Your task to perform on an android device: install app "Pandora - Music & Podcasts" Image 0: 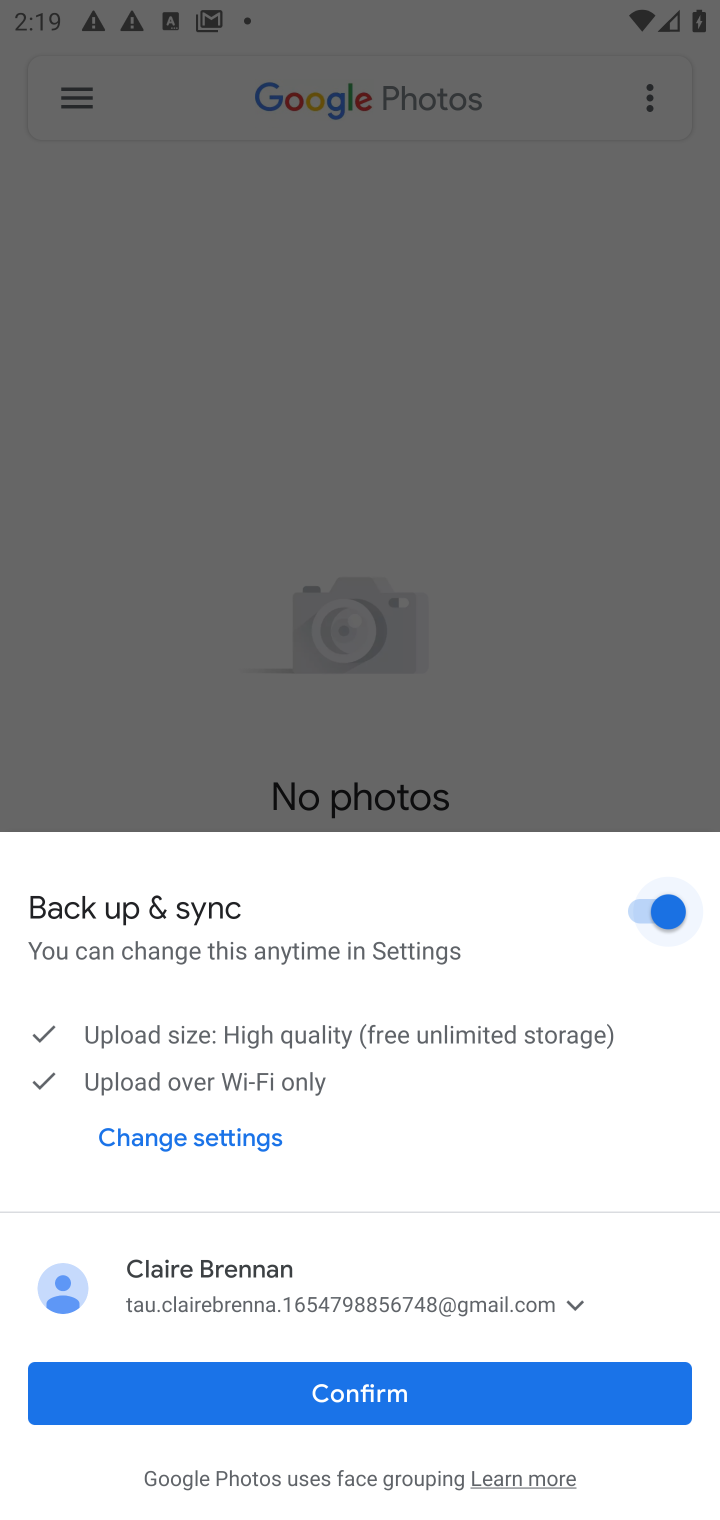
Step 0: press home button
Your task to perform on an android device: install app "Pandora - Music & Podcasts" Image 1: 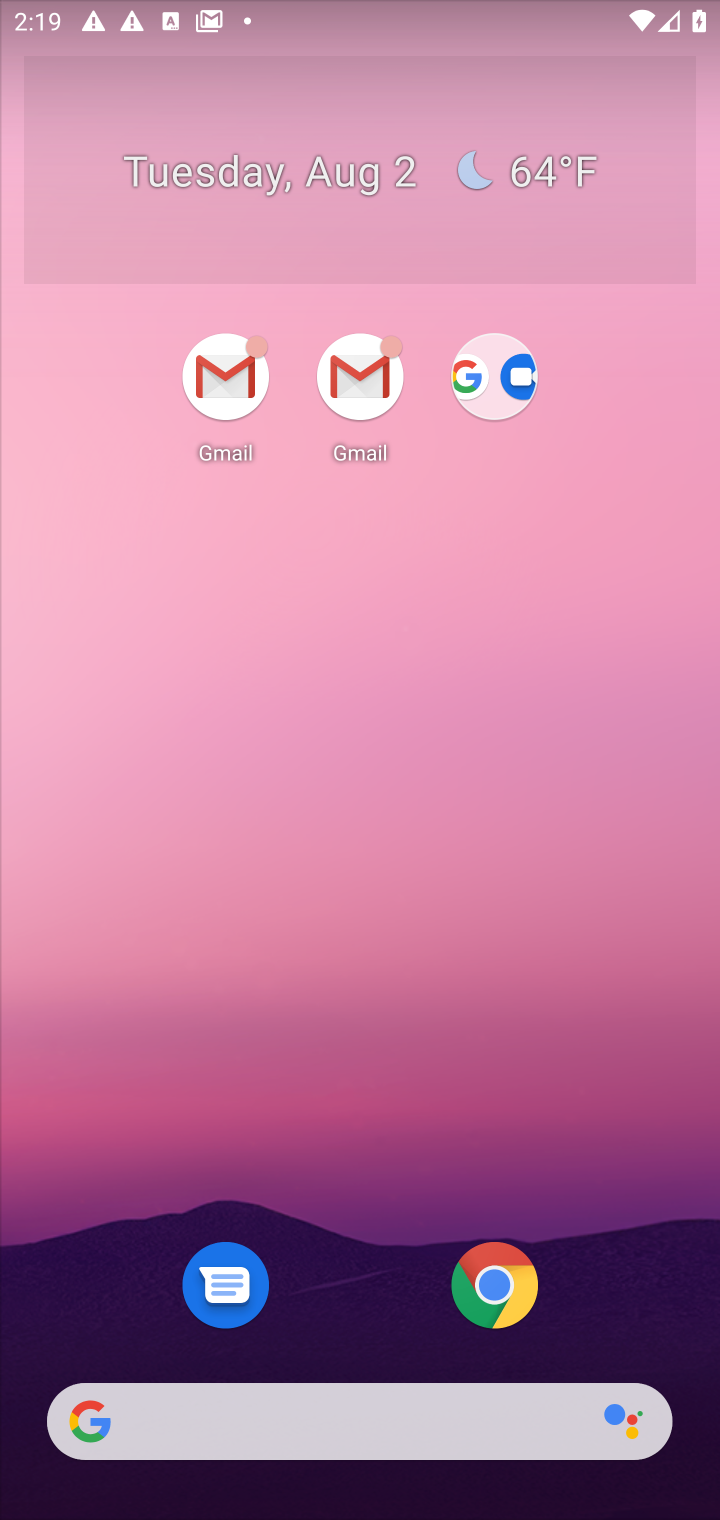
Step 1: drag from (369, 1229) to (423, 22)
Your task to perform on an android device: install app "Pandora - Music & Podcasts" Image 2: 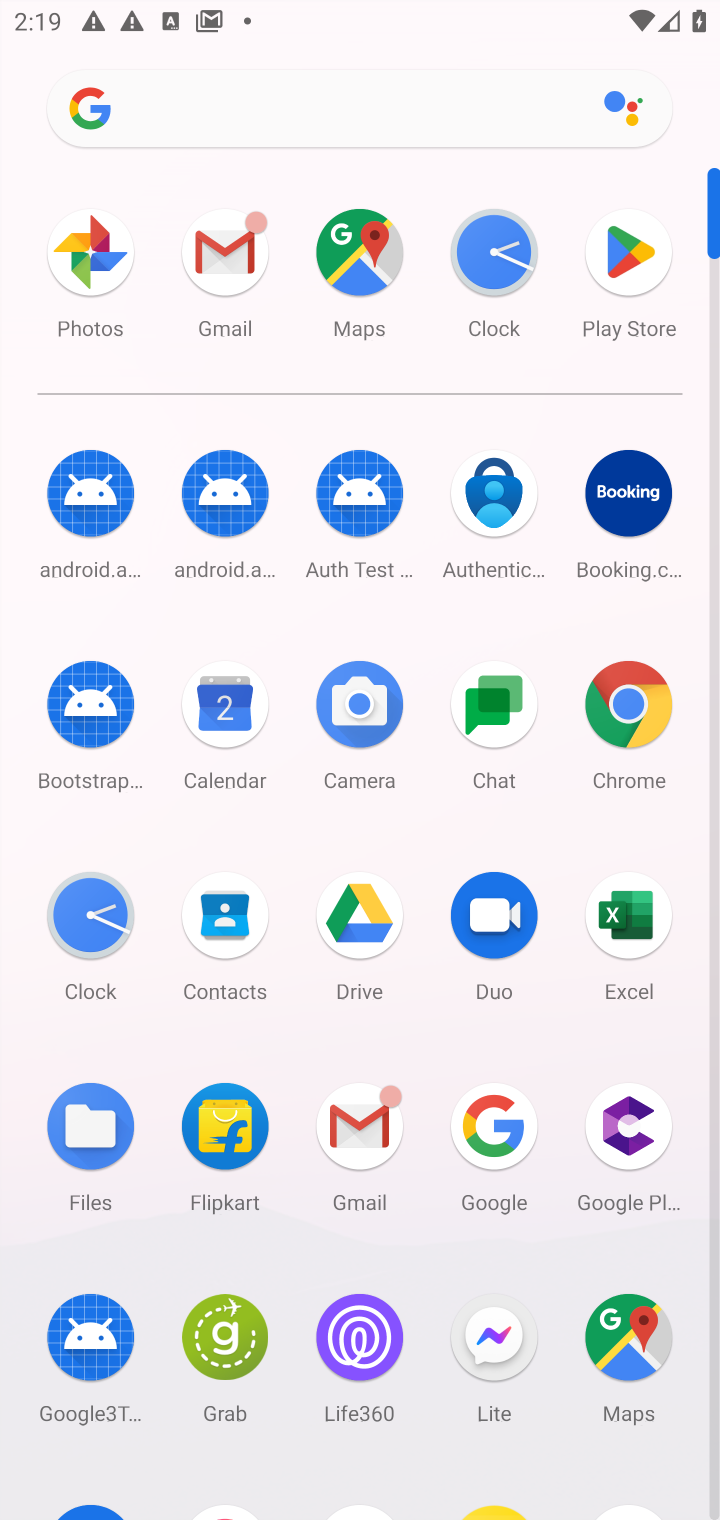
Step 2: drag from (414, 1246) to (514, 299)
Your task to perform on an android device: install app "Pandora - Music & Podcasts" Image 3: 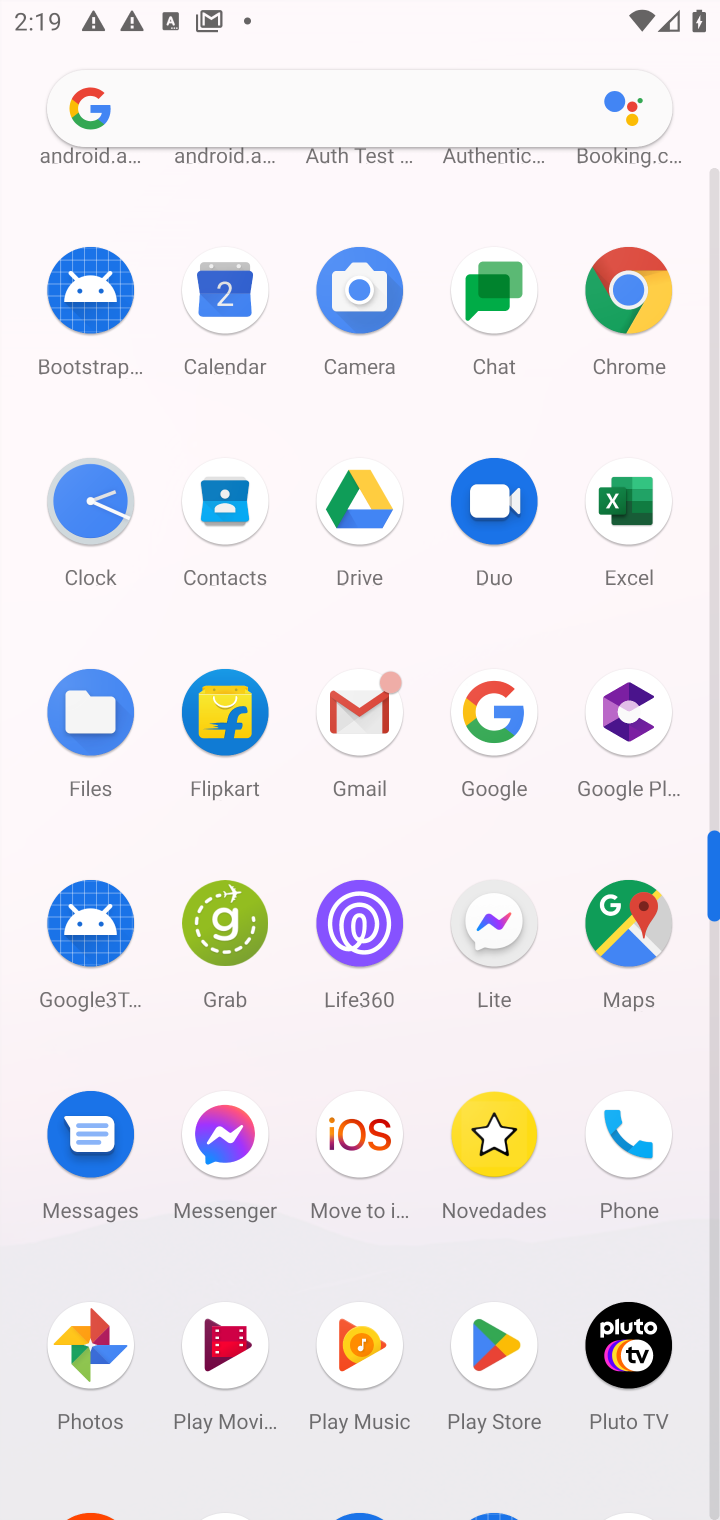
Step 3: click (496, 1323)
Your task to perform on an android device: install app "Pandora - Music & Podcasts" Image 4: 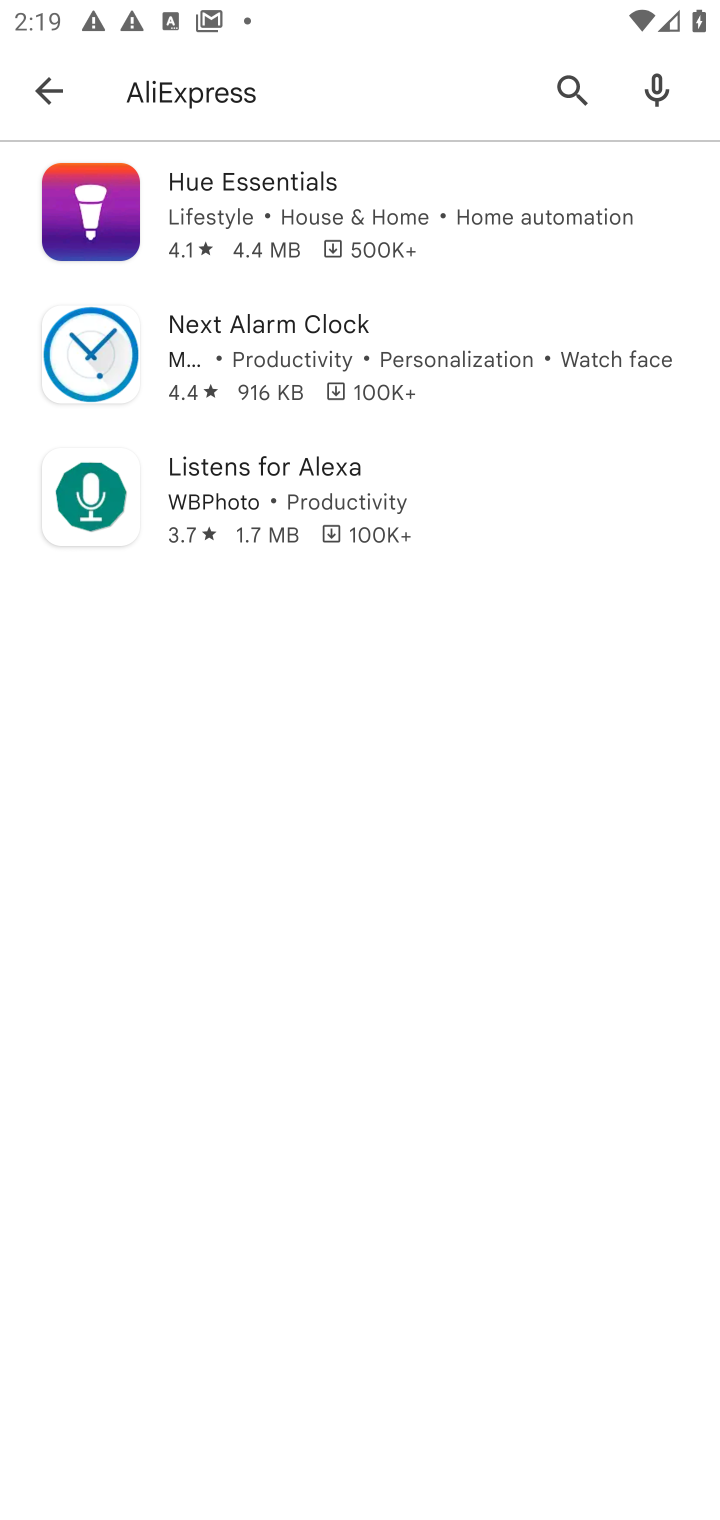
Step 4: click (478, 89)
Your task to perform on an android device: install app "Pandora - Music & Podcasts" Image 5: 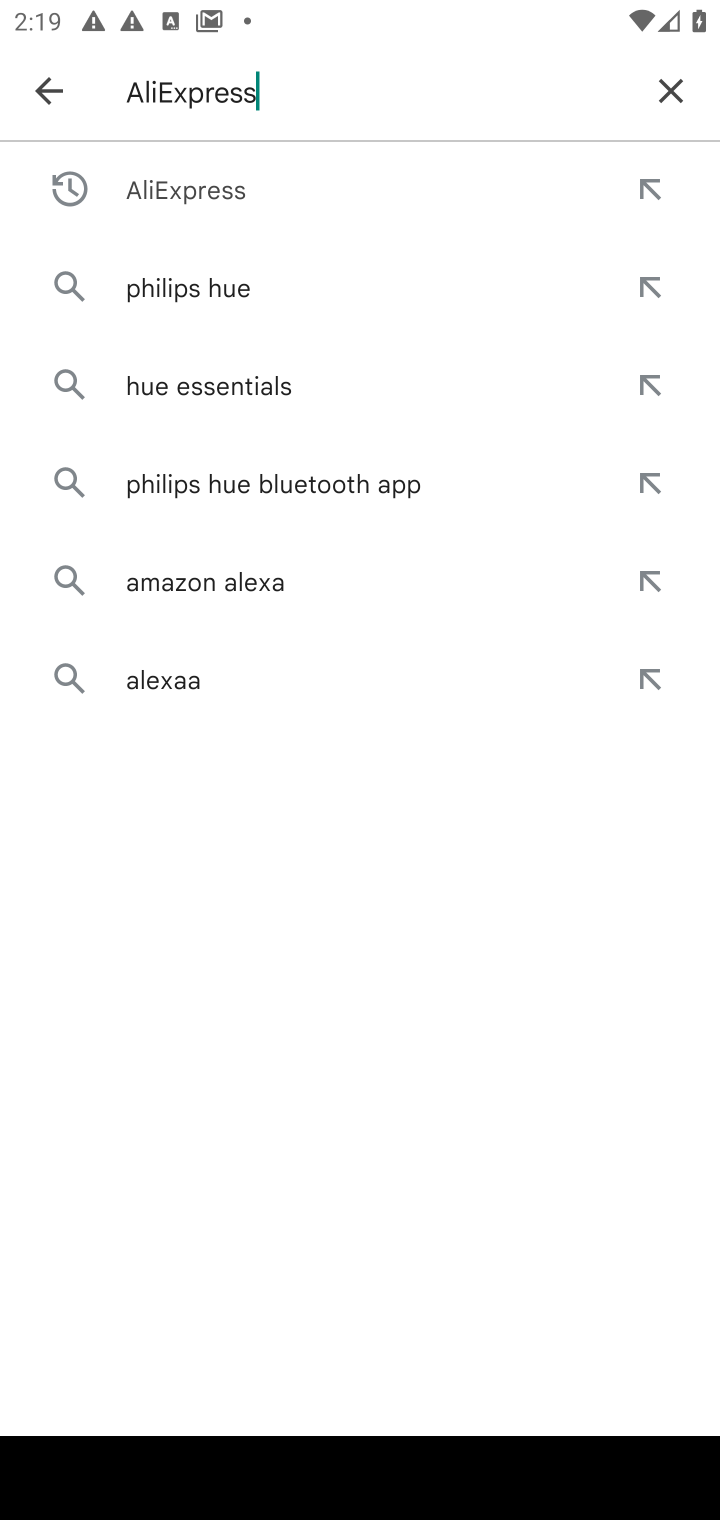
Step 5: click (666, 112)
Your task to perform on an android device: install app "Pandora - Music & Podcasts" Image 6: 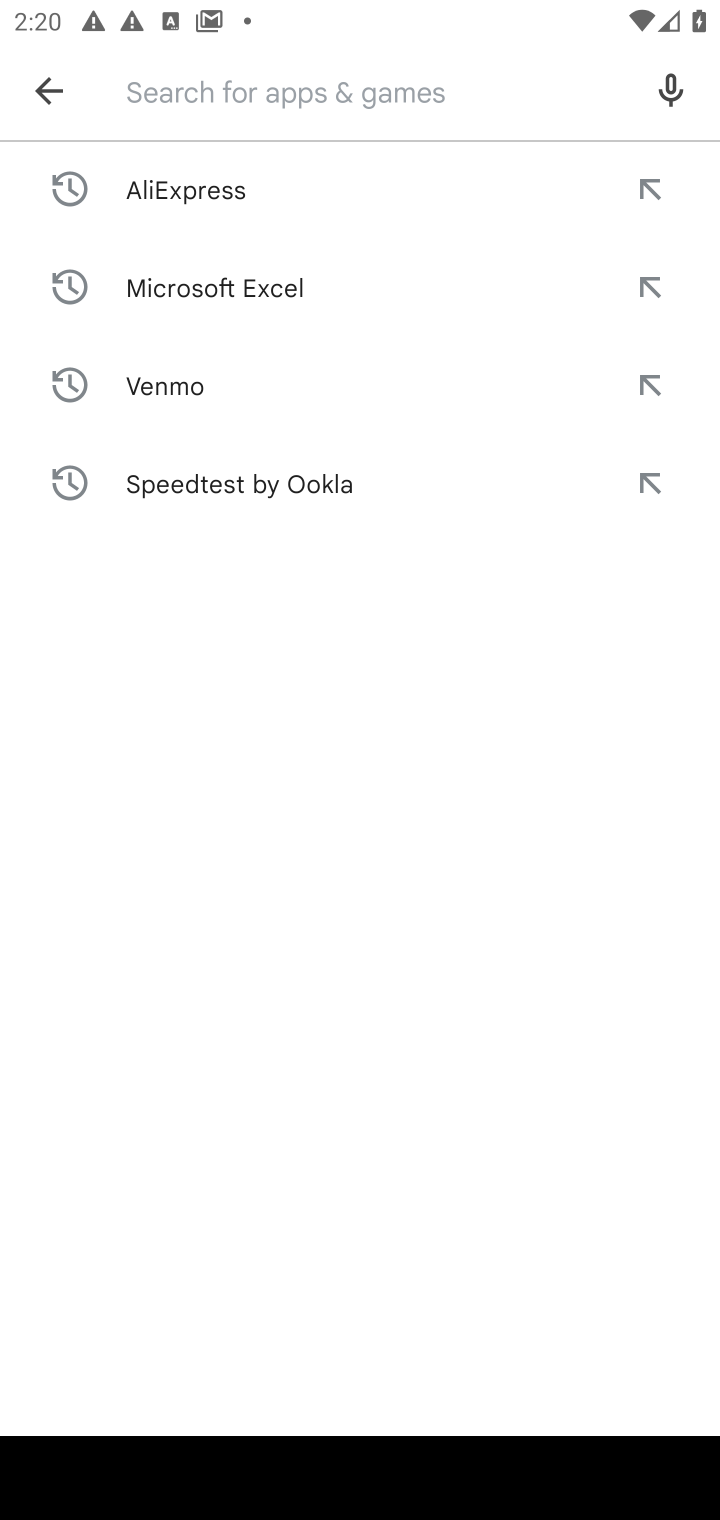
Step 6: type "Pandora - Music & Podcasts"
Your task to perform on an android device: install app "Pandora - Music & Podcasts" Image 7: 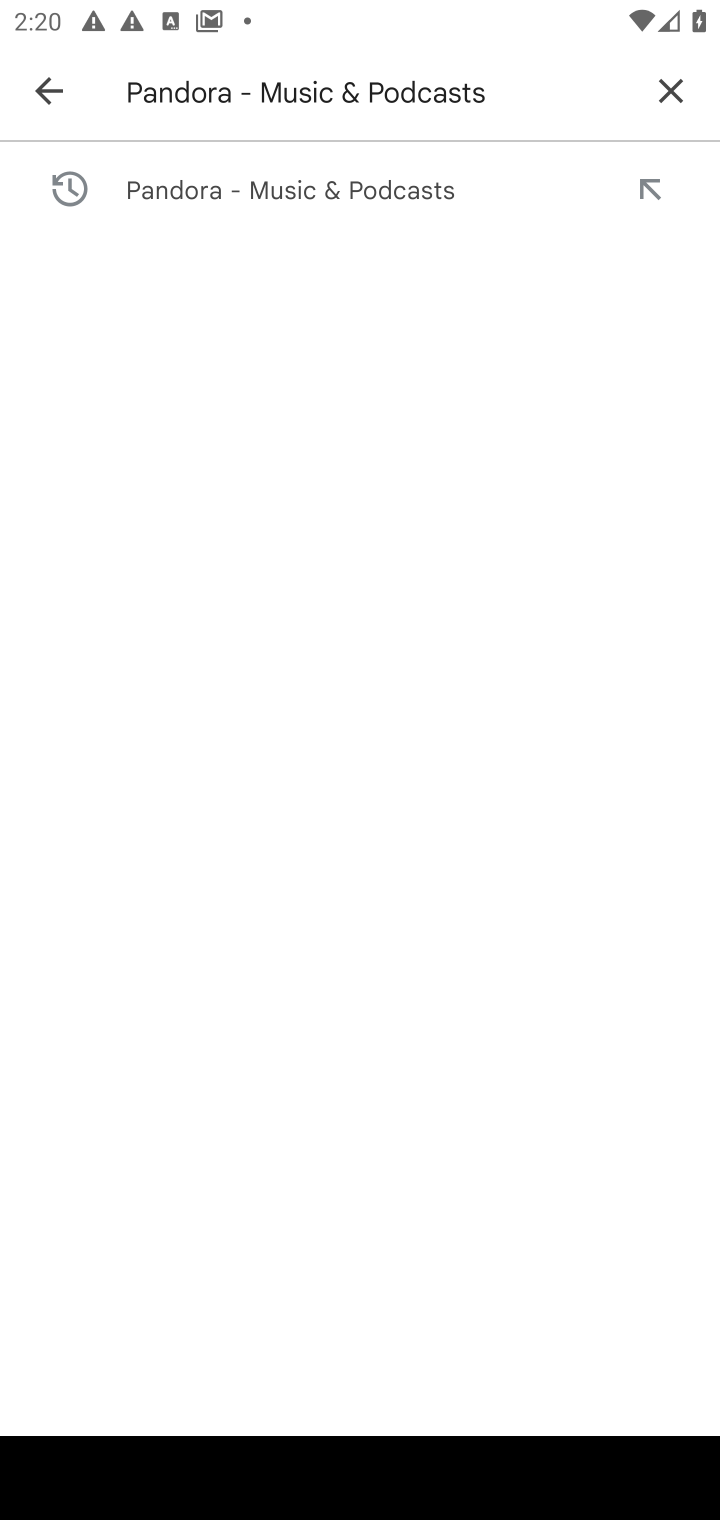
Step 7: click (424, 205)
Your task to perform on an android device: install app "Pandora - Music & Podcasts" Image 8: 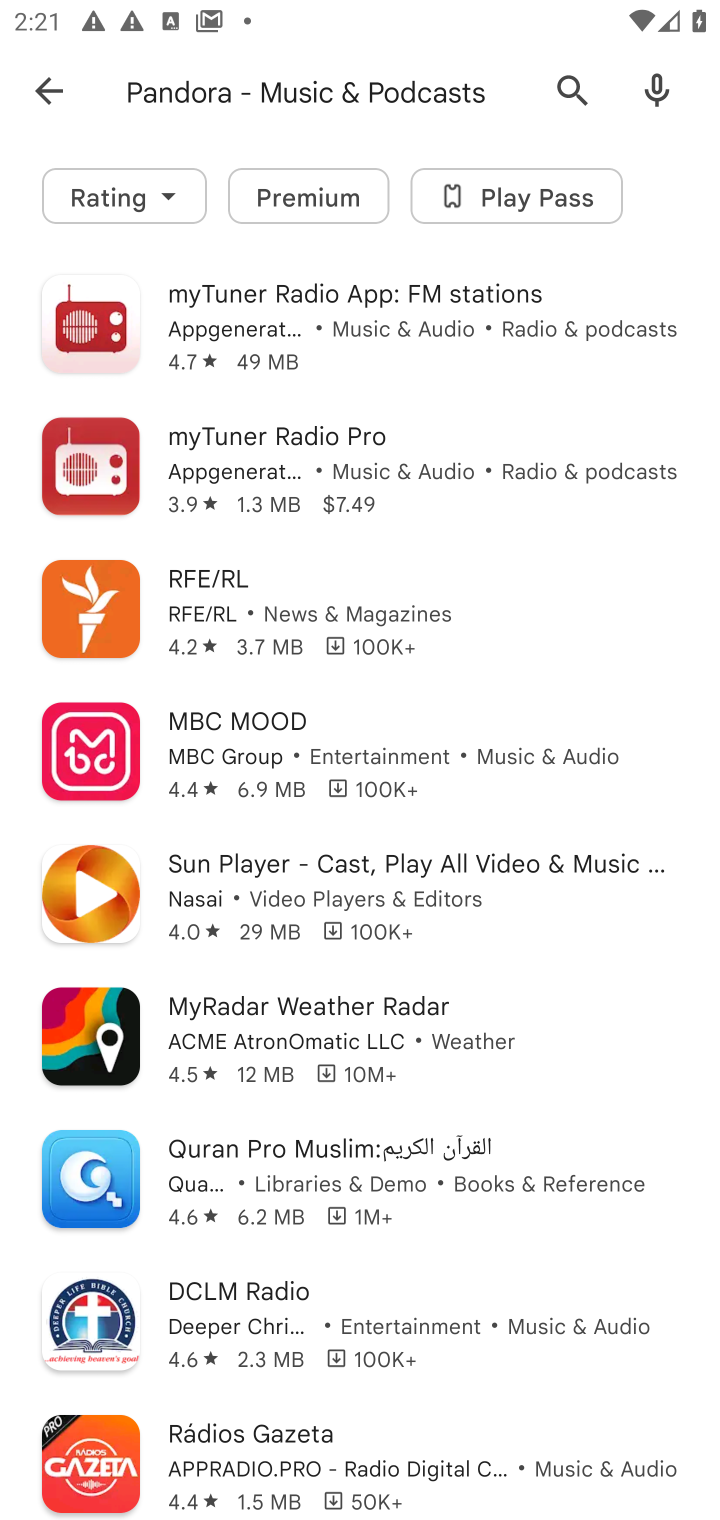
Step 8: task complete